Your task to perform on an android device: Search for seafood restaurants on Google Maps Image 0: 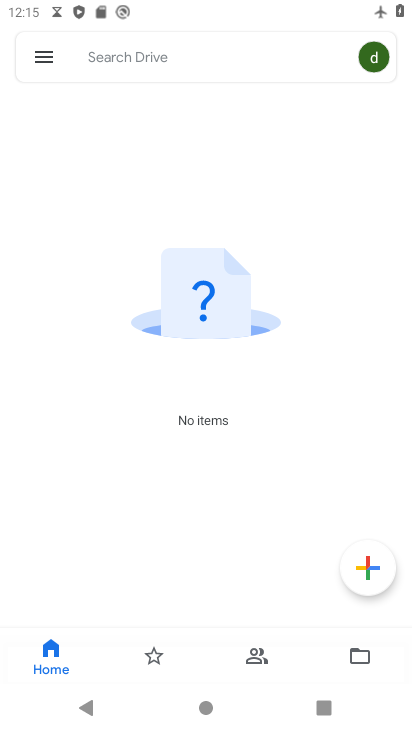
Step 0: press home button
Your task to perform on an android device: Search for seafood restaurants on Google Maps Image 1: 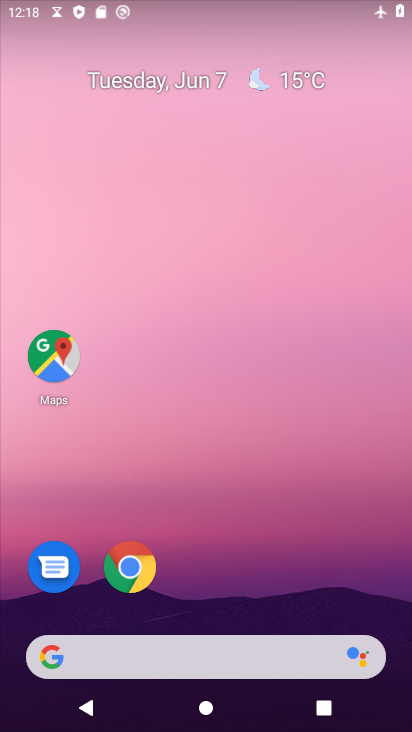
Step 1: drag from (214, 648) to (117, 2)
Your task to perform on an android device: Search for seafood restaurants on Google Maps Image 2: 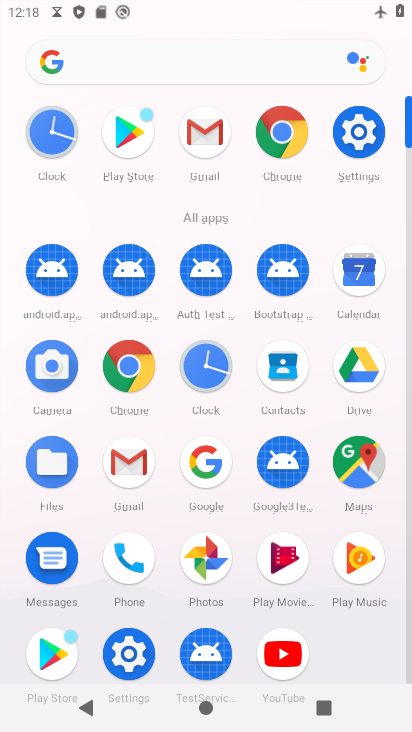
Step 2: click (356, 460)
Your task to perform on an android device: Search for seafood restaurants on Google Maps Image 3: 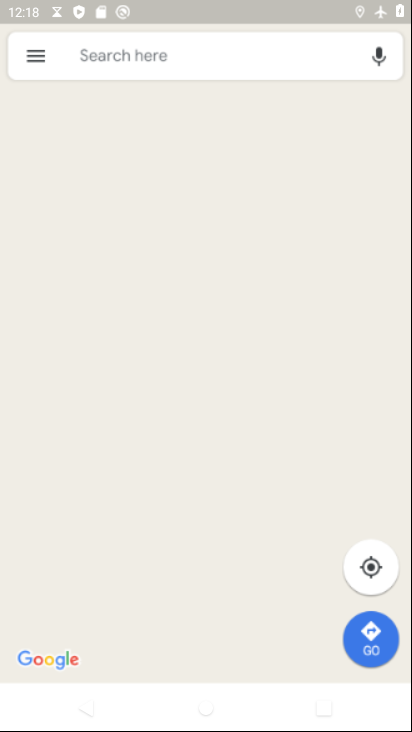
Step 3: click (282, 45)
Your task to perform on an android device: Search for seafood restaurants on Google Maps Image 4: 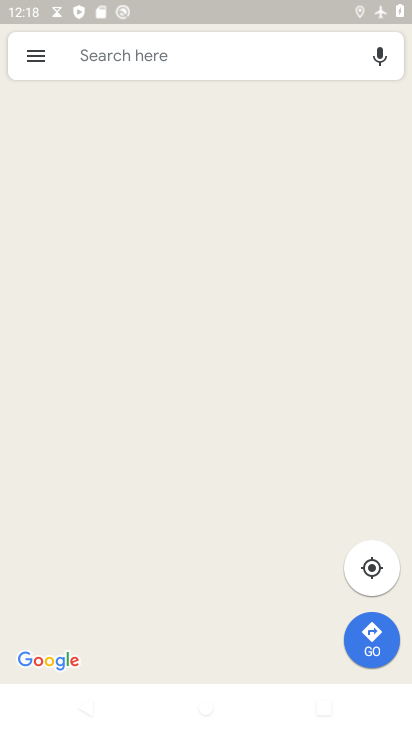
Step 4: click (132, 51)
Your task to perform on an android device: Search for seafood restaurants on Google Maps Image 5: 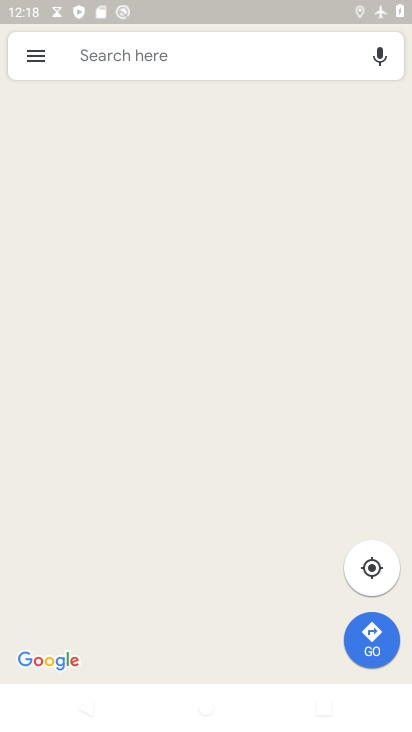
Step 5: click (132, 51)
Your task to perform on an android device: Search for seafood restaurants on Google Maps Image 6: 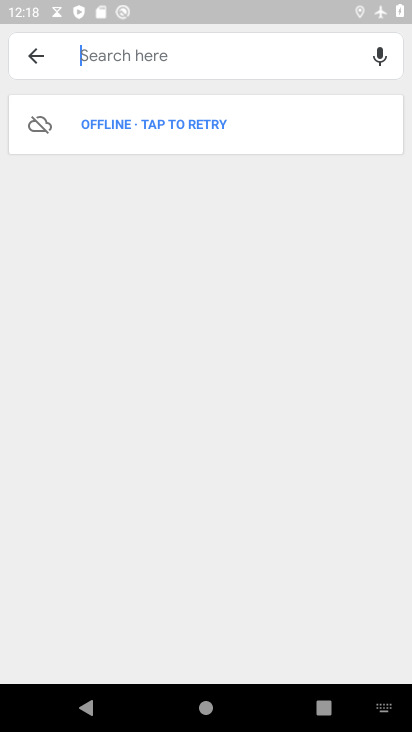
Step 6: task complete